Your task to perform on an android device: delete browsing data in the chrome app Image 0: 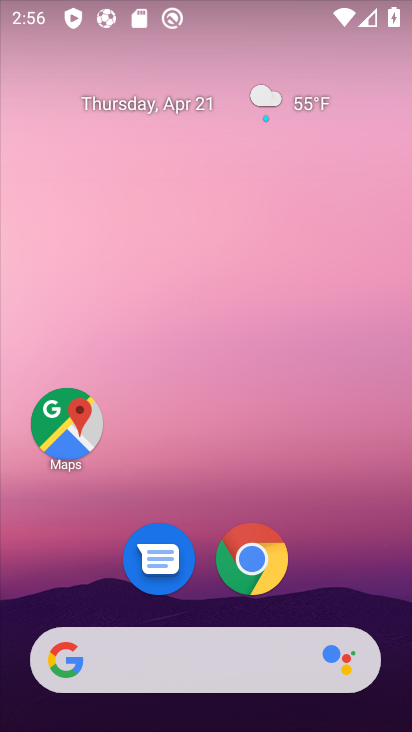
Step 0: drag from (333, 600) to (347, 218)
Your task to perform on an android device: delete browsing data in the chrome app Image 1: 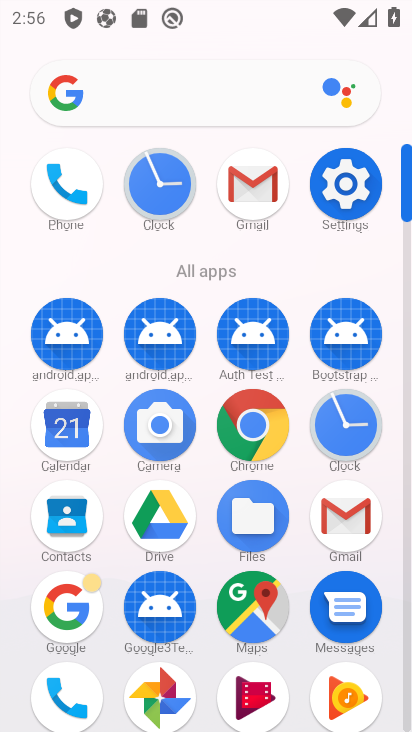
Step 1: click (254, 407)
Your task to perform on an android device: delete browsing data in the chrome app Image 2: 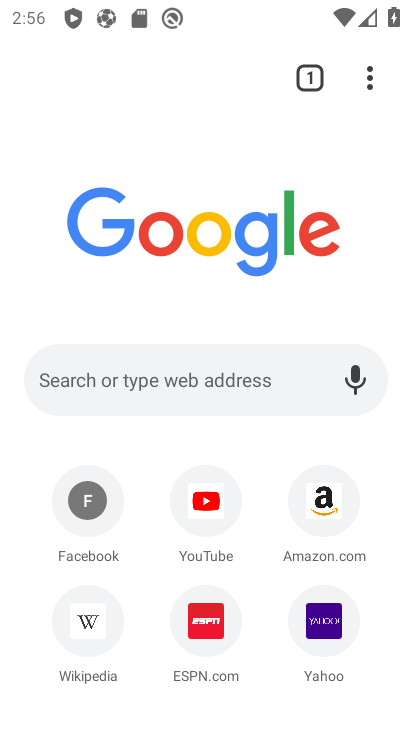
Step 2: click (377, 75)
Your task to perform on an android device: delete browsing data in the chrome app Image 3: 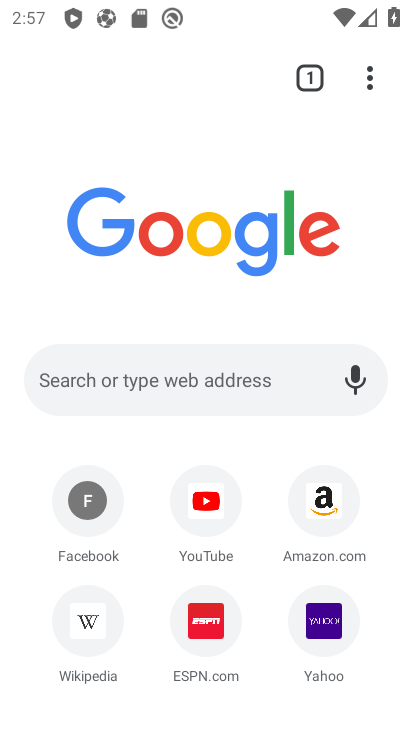
Step 3: click (377, 71)
Your task to perform on an android device: delete browsing data in the chrome app Image 4: 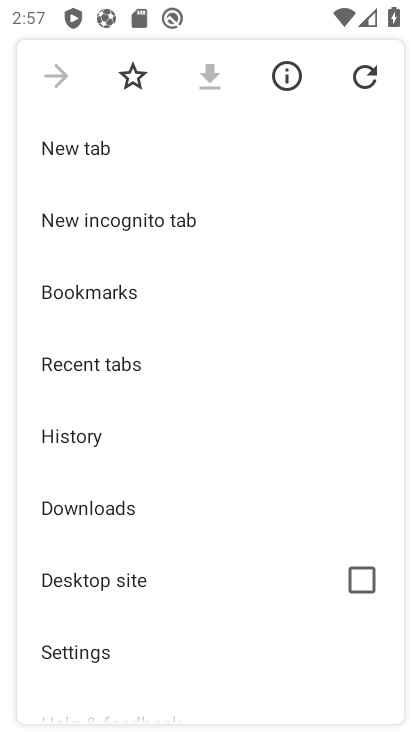
Step 4: click (91, 433)
Your task to perform on an android device: delete browsing data in the chrome app Image 5: 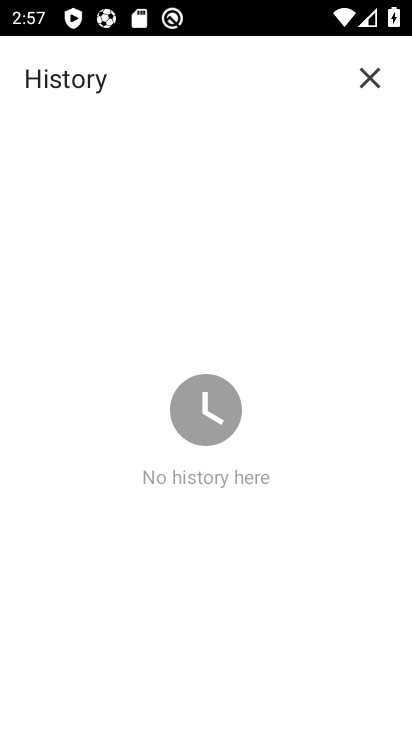
Step 5: task complete